Your task to perform on an android device: move an email to a new category in the gmail app Image 0: 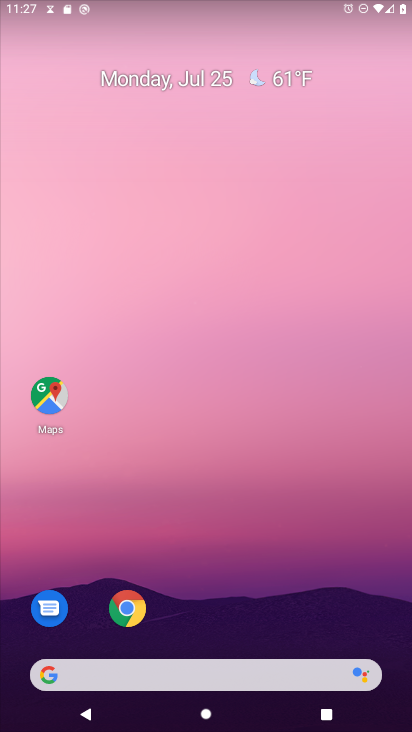
Step 0: drag from (163, 683) to (340, 270)
Your task to perform on an android device: move an email to a new category in the gmail app Image 1: 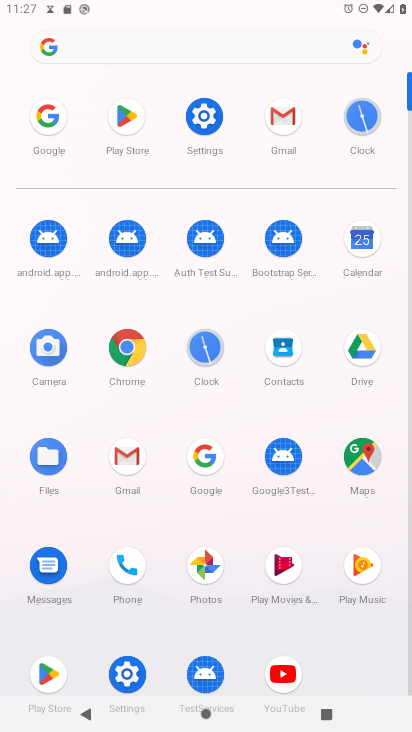
Step 1: click (283, 115)
Your task to perform on an android device: move an email to a new category in the gmail app Image 2: 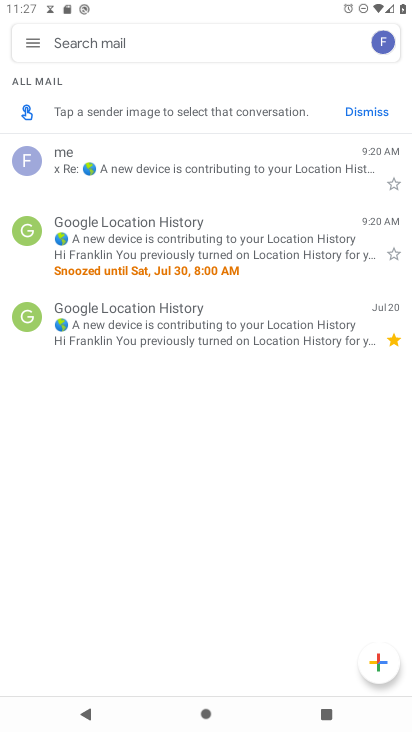
Step 2: click (279, 174)
Your task to perform on an android device: move an email to a new category in the gmail app Image 3: 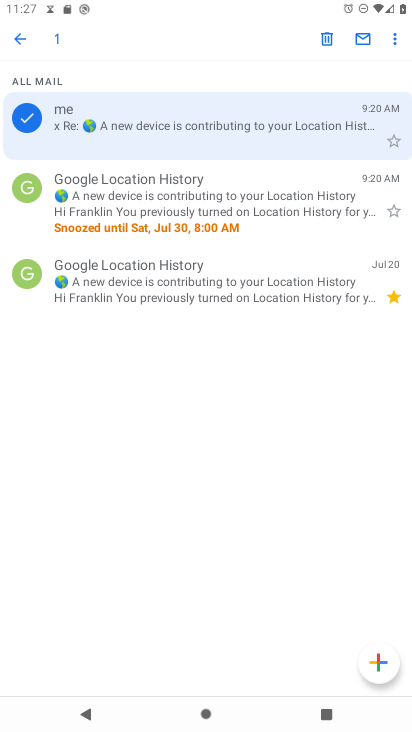
Step 3: click (396, 38)
Your task to perform on an android device: move an email to a new category in the gmail app Image 4: 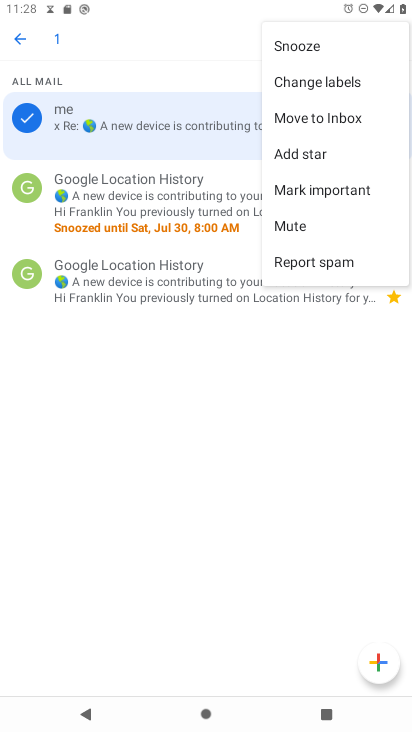
Step 4: click (312, 124)
Your task to perform on an android device: move an email to a new category in the gmail app Image 5: 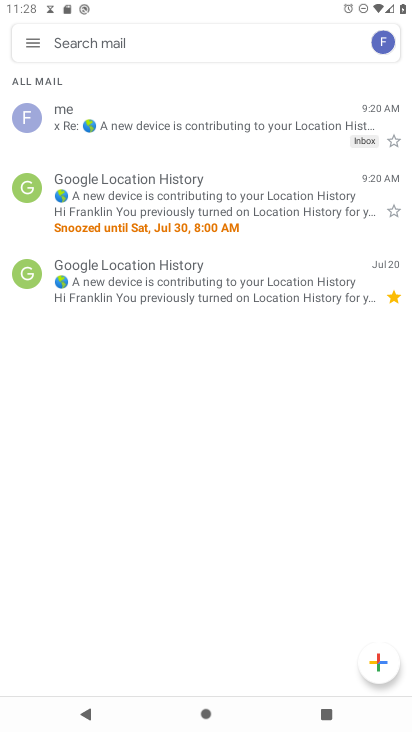
Step 5: task complete